Your task to perform on an android device: turn pop-ups on in chrome Image 0: 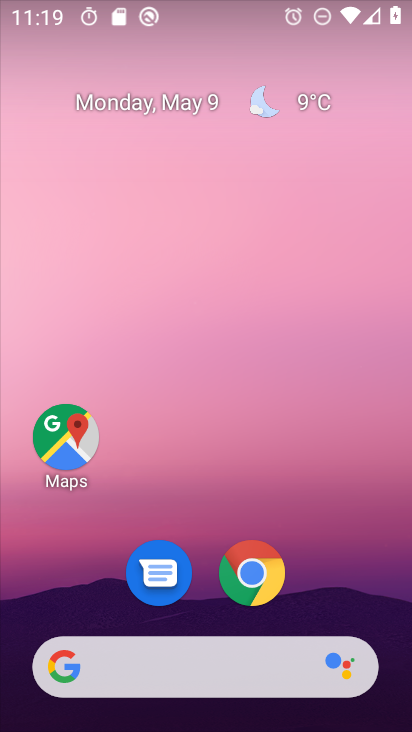
Step 0: click (248, 577)
Your task to perform on an android device: turn pop-ups on in chrome Image 1: 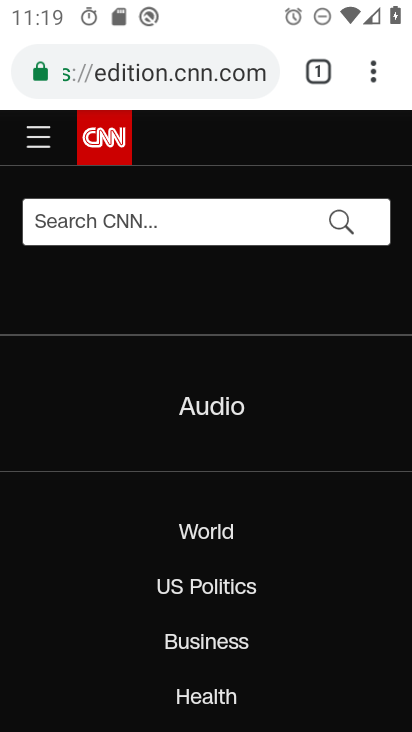
Step 1: drag from (374, 65) to (167, 576)
Your task to perform on an android device: turn pop-ups on in chrome Image 2: 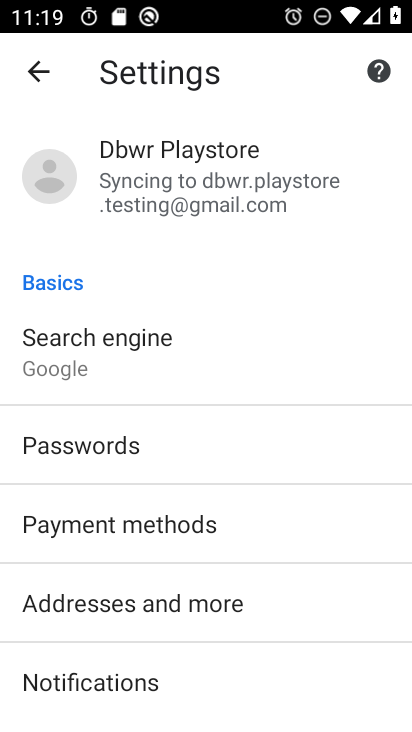
Step 2: drag from (193, 573) to (378, 10)
Your task to perform on an android device: turn pop-ups on in chrome Image 3: 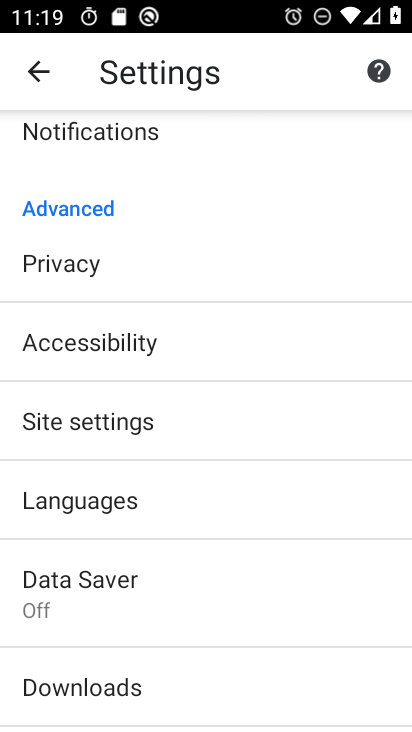
Step 3: drag from (148, 617) to (204, 343)
Your task to perform on an android device: turn pop-ups on in chrome Image 4: 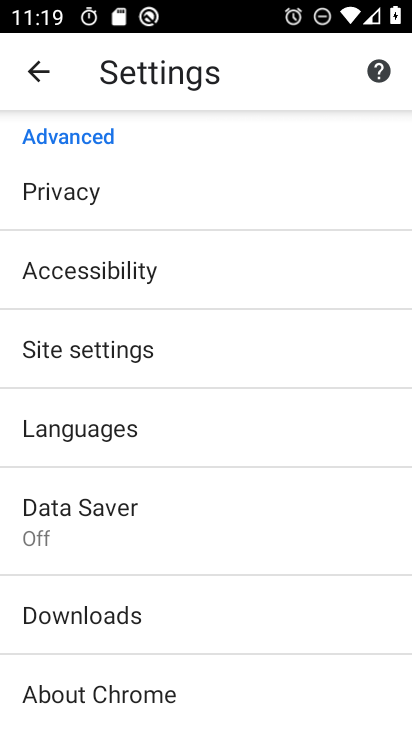
Step 4: click (123, 335)
Your task to perform on an android device: turn pop-ups on in chrome Image 5: 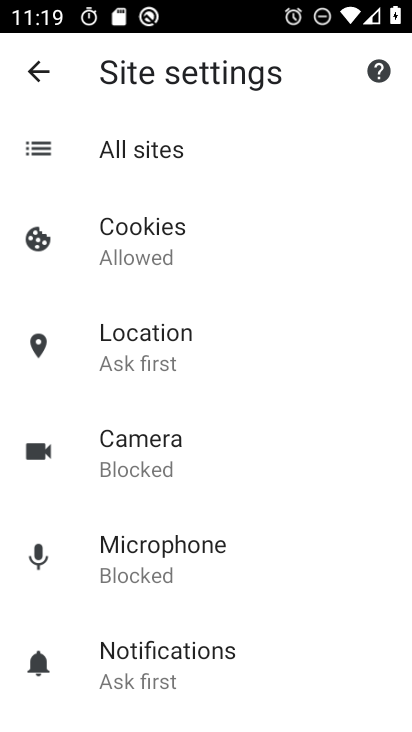
Step 5: drag from (222, 664) to (301, 289)
Your task to perform on an android device: turn pop-ups on in chrome Image 6: 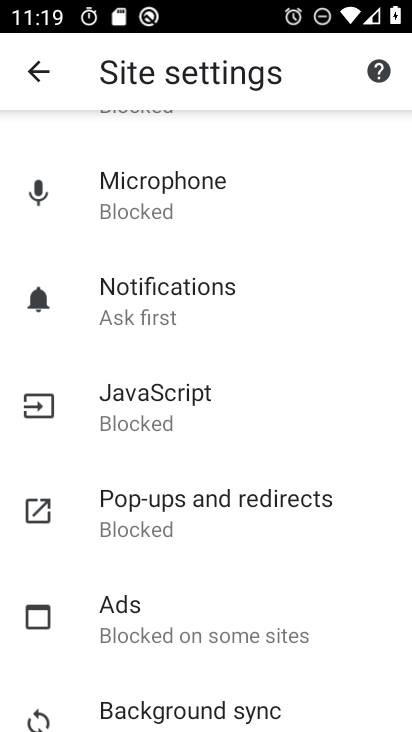
Step 6: click (181, 512)
Your task to perform on an android device: turn pop-ups on in chrome Image 7: 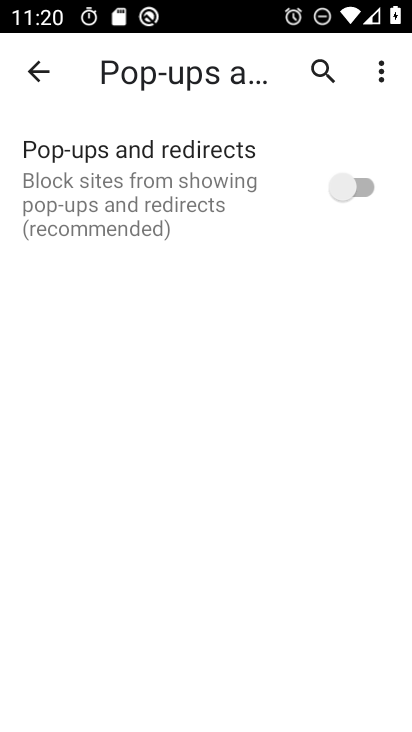
Step 7: click (357, 176)
Your task to perform on an android device: turn pop-ups on in chrome Image 8: 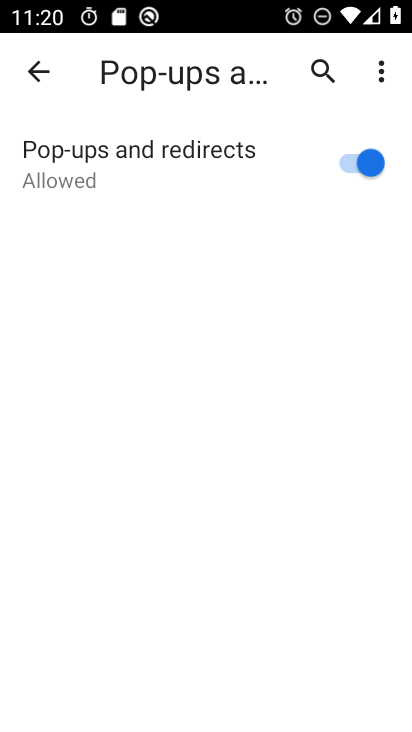
Step 8: task complete